Your task to perform on an android device: Open location settings Image 0: 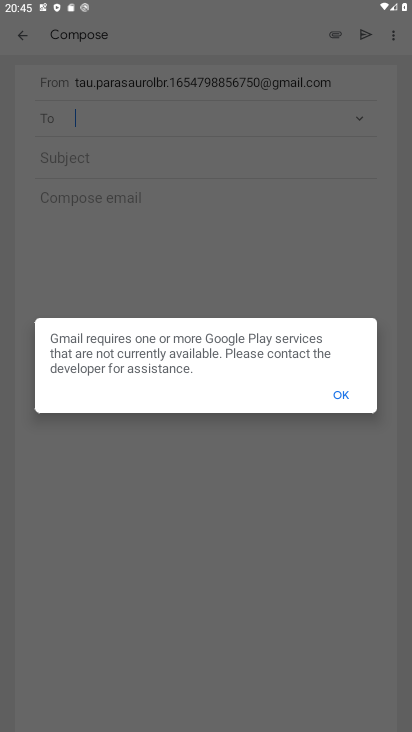
Step 0: click (347, 396)
Your task to perform on an android device: Open location settings Image 1: 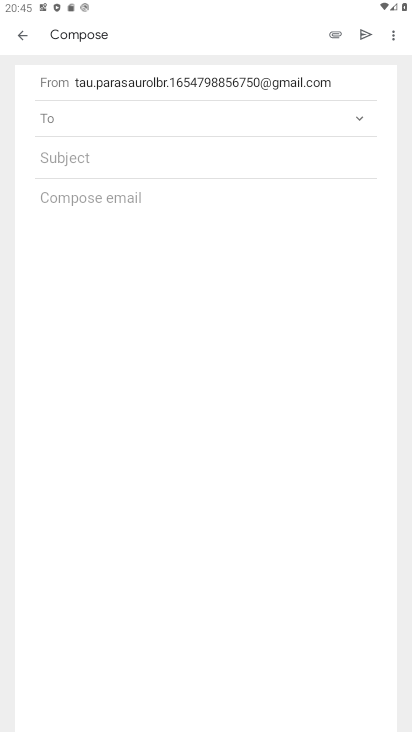
Step 1: click (24, 28)
Your task to perform on an android device: Open location settings Image 2: 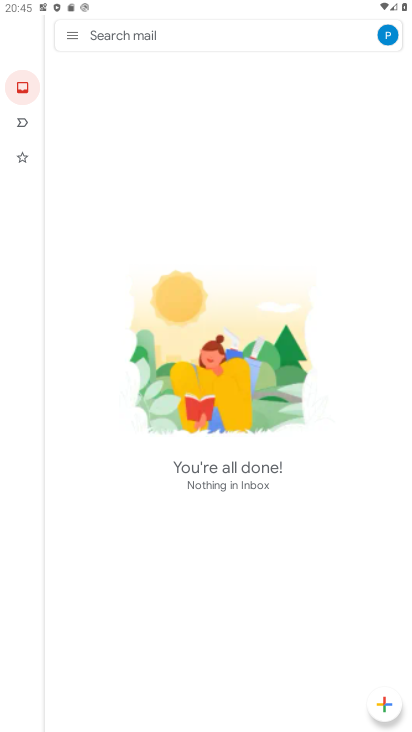
Step 2: press back button
Your task to perform on an android device: Open location settings Image 3: 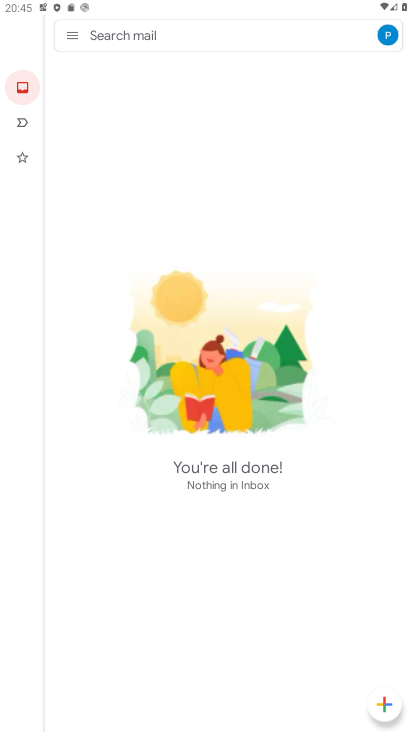
Step 3: press back button
Your task to perform on an android device: Open location settings Image 4: 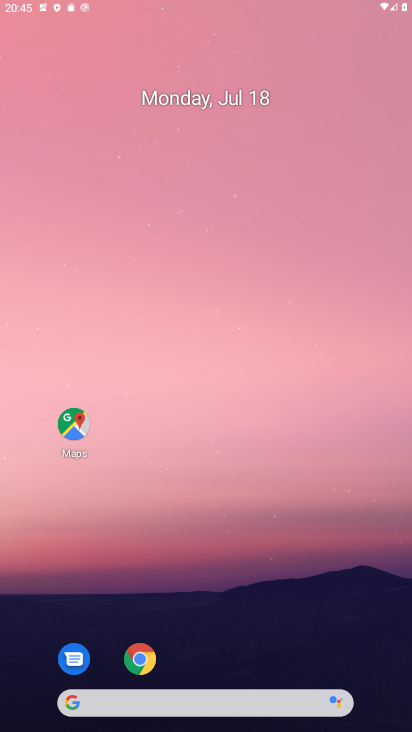
Step 4: press back button
Your task to perform on an android device: Open location settings Image 5: 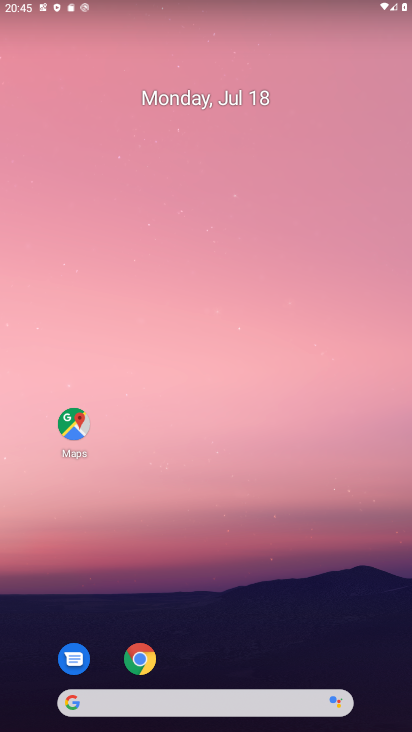
Step 5: drag from (241, 636) to (163, 103)
Your task to perform on an android device: Open location settings Image 6: 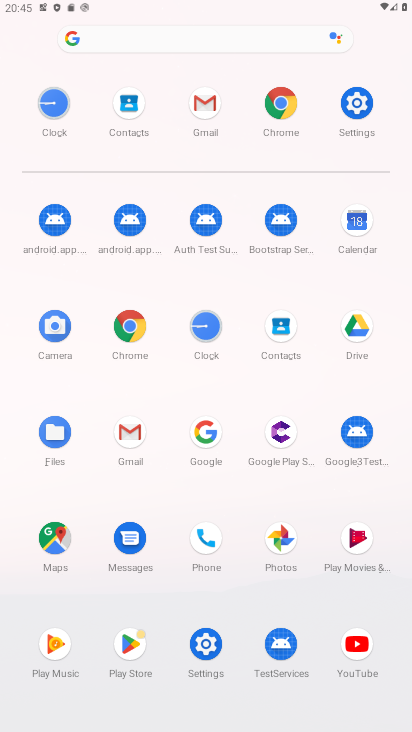
Step 6: click (366, 103)
Your task to perform on an android device: Open location settings Image 7: 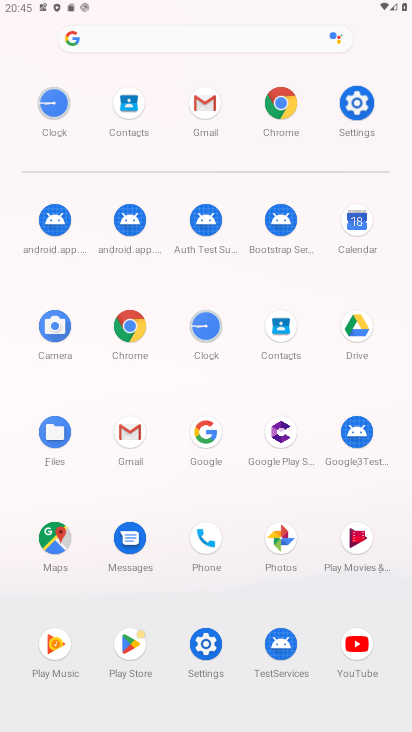
Step 7: click (367, 104)
Your task to perform on an android device: Open location settings Image 8: 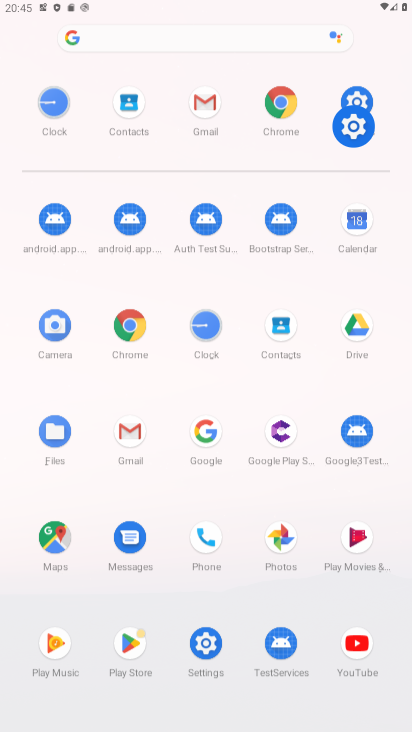
Step 8: click (368, 105)
Your task to perform on an android device: Open location settings Image 9: 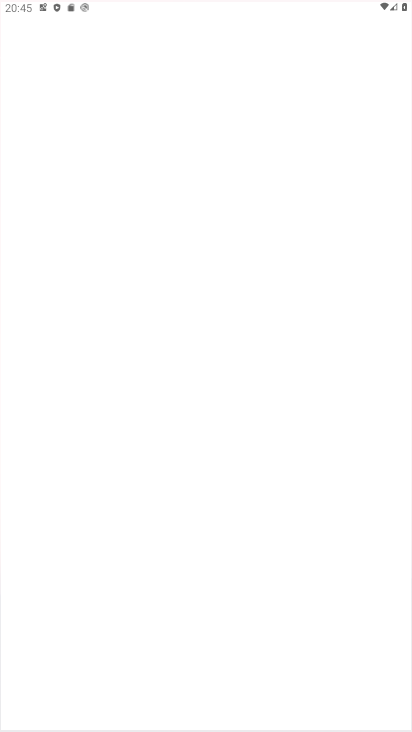
Step 9: click (369, 107)
Your task to perform on an android device: Open location settings Image 10: 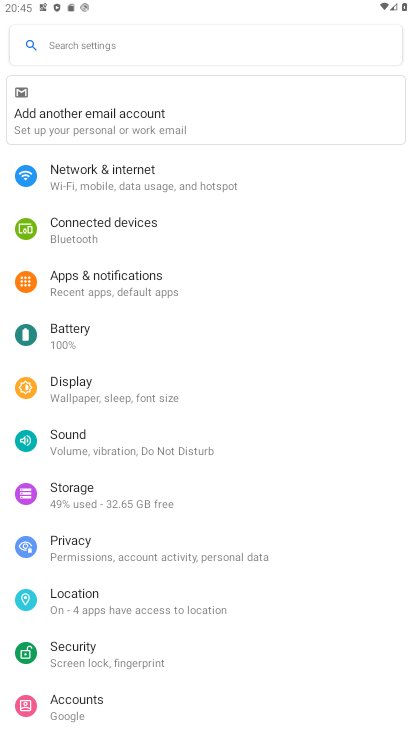
Step 10: click (97, 604)
Your task to perform on an android device: Open location settings Image 11: 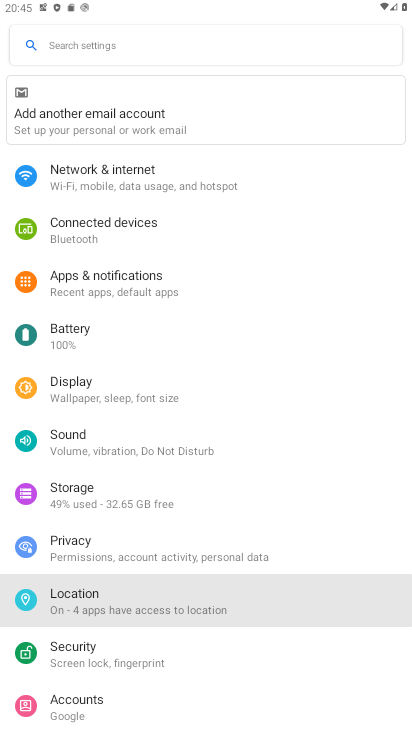
Step 11: click (97, 604)
Your task to perform on an android device: Open location settings Image 12: 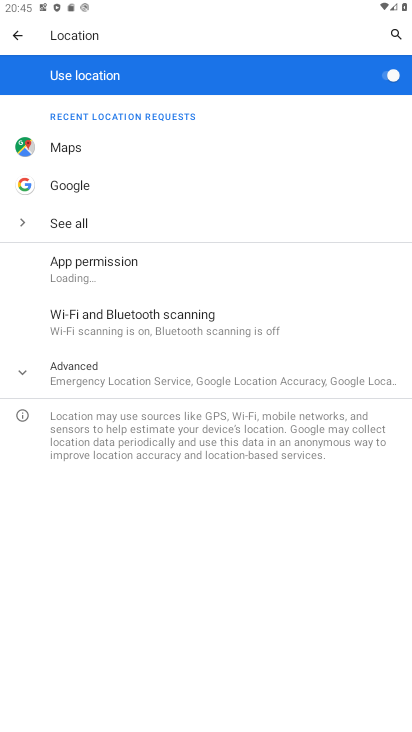
Step 12: click (90, 371)
Your task to perform on an android device: Open location settings Image 13: 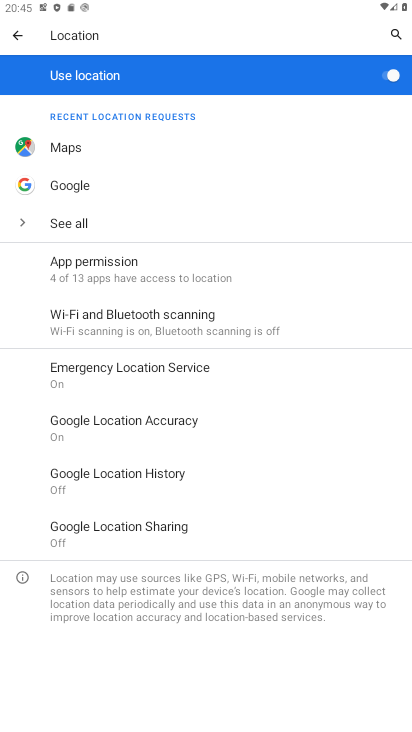
Step 13: task complete